Your task to perform on an android device: Show me recent news Image 0: 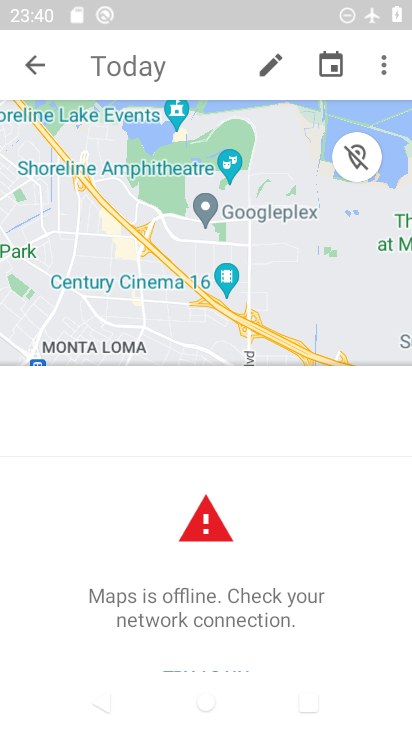
Step 0: press home button
Your task to perform on an android device: Show me recent news Image 1: 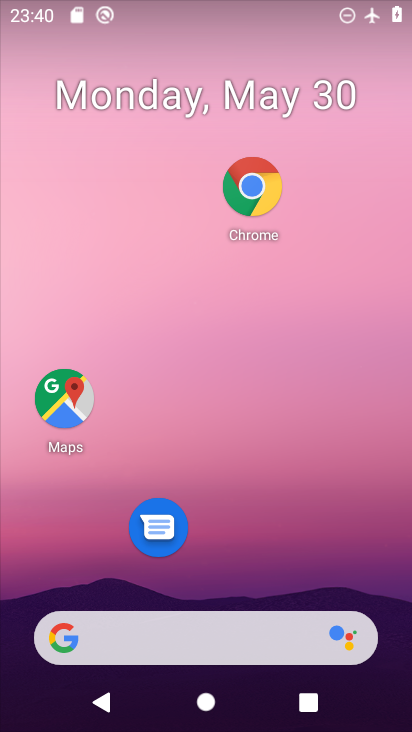
Step 1: drag from (280, 609) to (285, 236)
Your task to perform on an android device: Show me recent news Image 2: 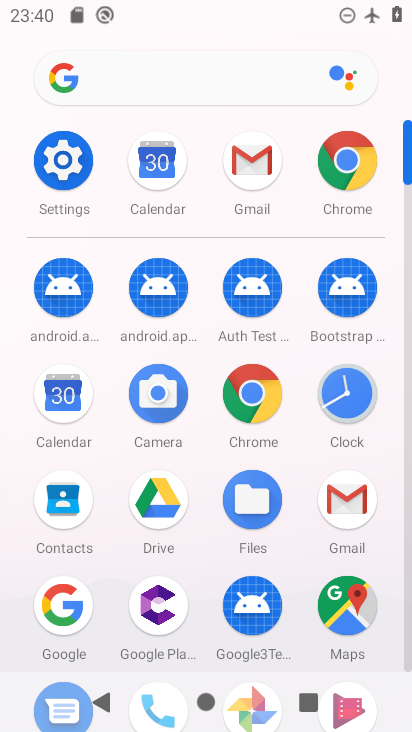
Step 2: click (246, 390)
Your task to perform on an android device: Show me recent news Image 3: 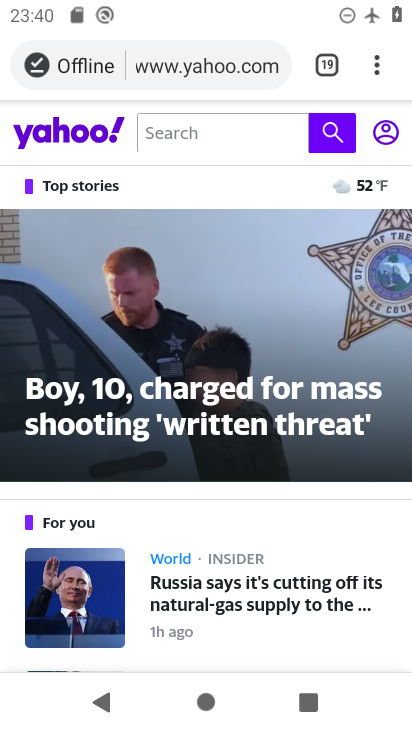
Step 3: click (387, 59)
Your task to perform on an android device: Show me recent news Image 4: 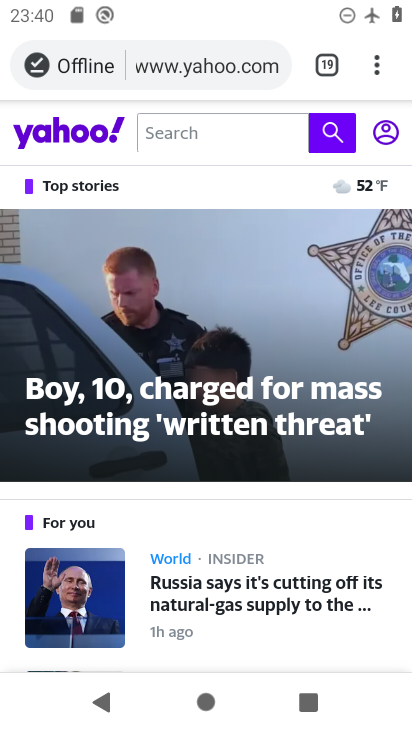
Step 4: click (377, 64)
Your task to perform on an android device: Show me recent news Image 5: 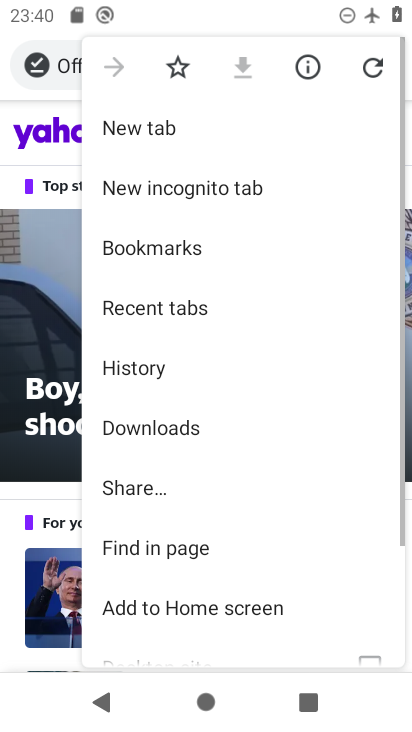
Step 5: click (193, 115)
Your task to perform on an android device: Show me recent news Image 6: 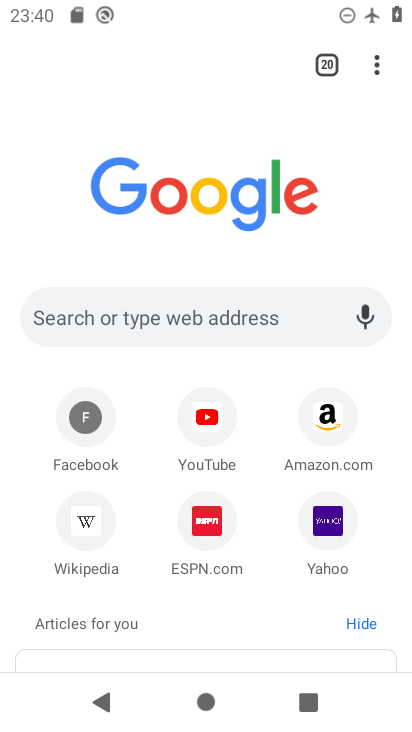
Step 6: click (211, 305)
Your task to perform on an android device: Show me recent news Image 7: 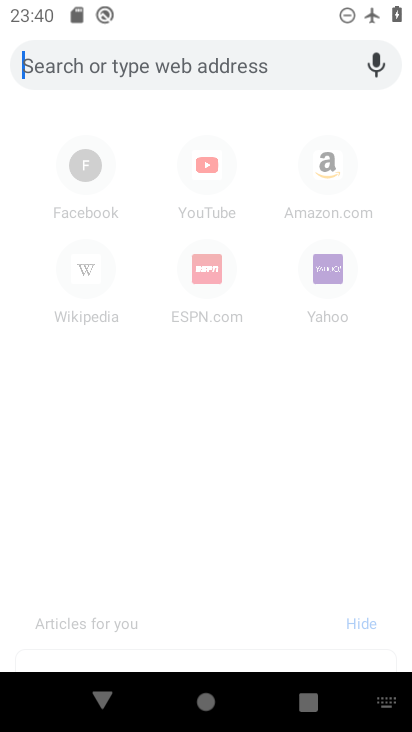
Step 7: type "Show me recent news"
Your task to perform on an android device: Show me recent news Image 8: 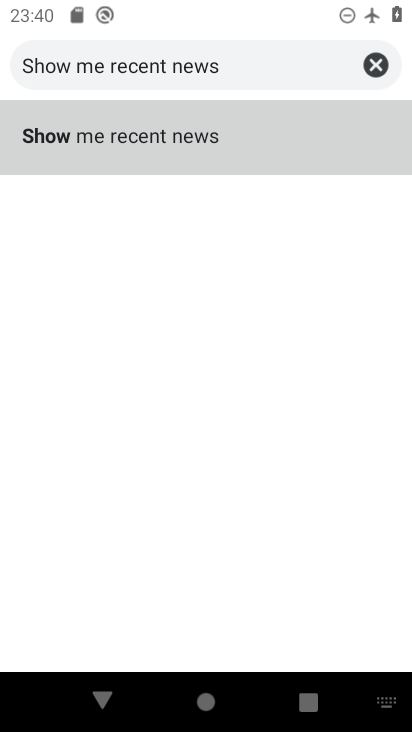
Step 8: click (283, 122)
Your task to perform on an android device: Show me recent news Image 9: 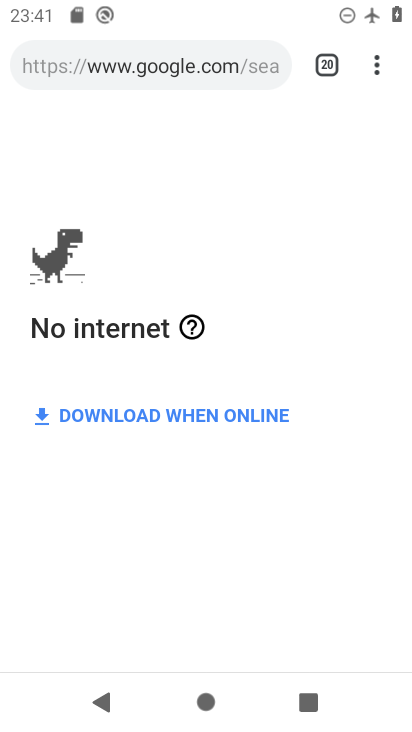
Step 9: task complete